Your task to perform on an android device: remove spam from my inbox in the gmail app Image 0: 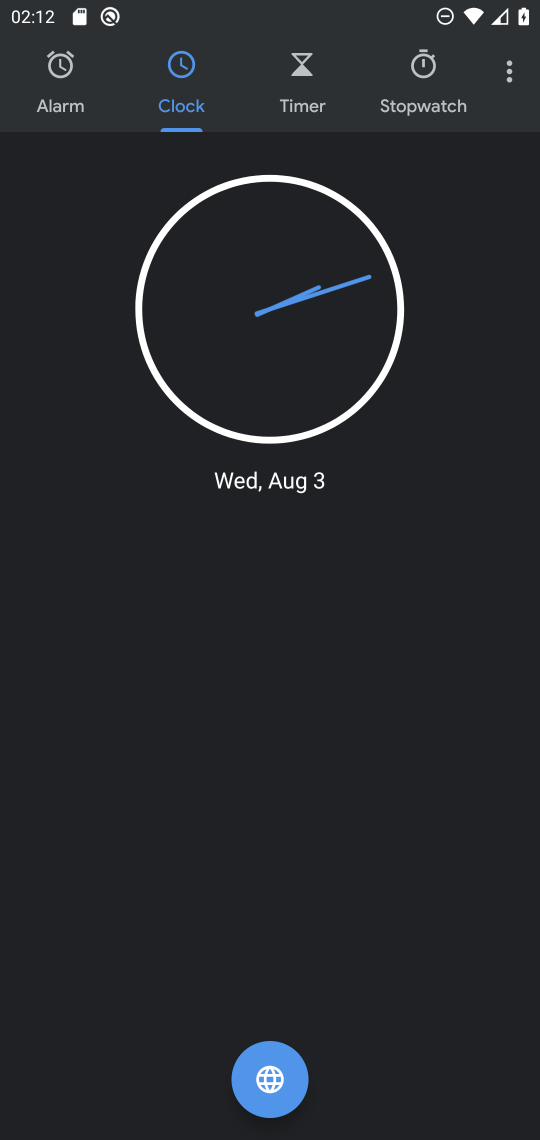
Step 0: press home button
Your task to perform on an android device: remove spam from my inbox in the gmail app Image 1: 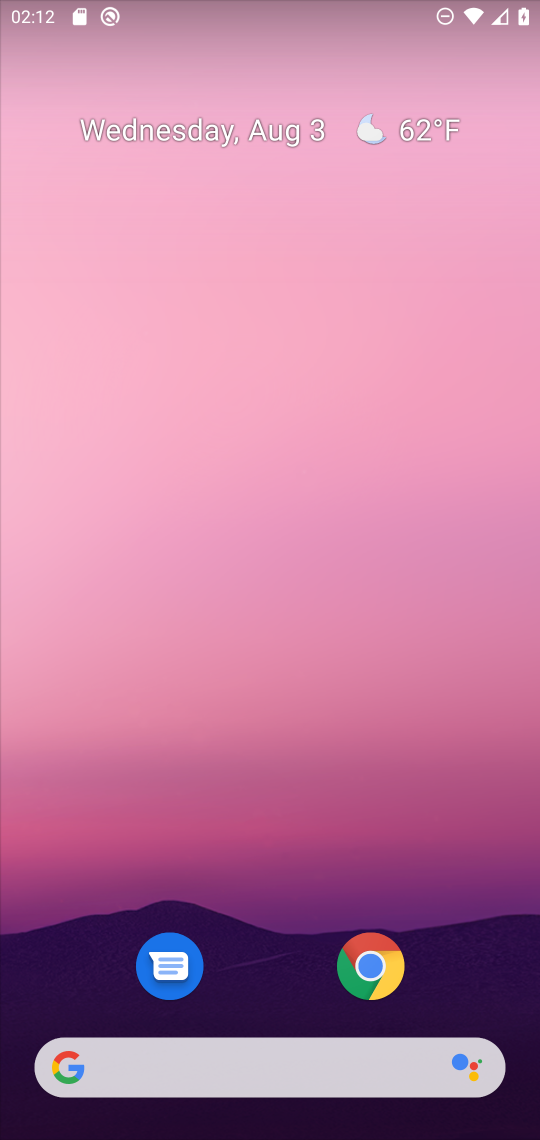
Step 1: drag from (271, 984) to (260, 332)
Your task to perform on an android device: remove spam from my inbox in the gmail app Image 2: 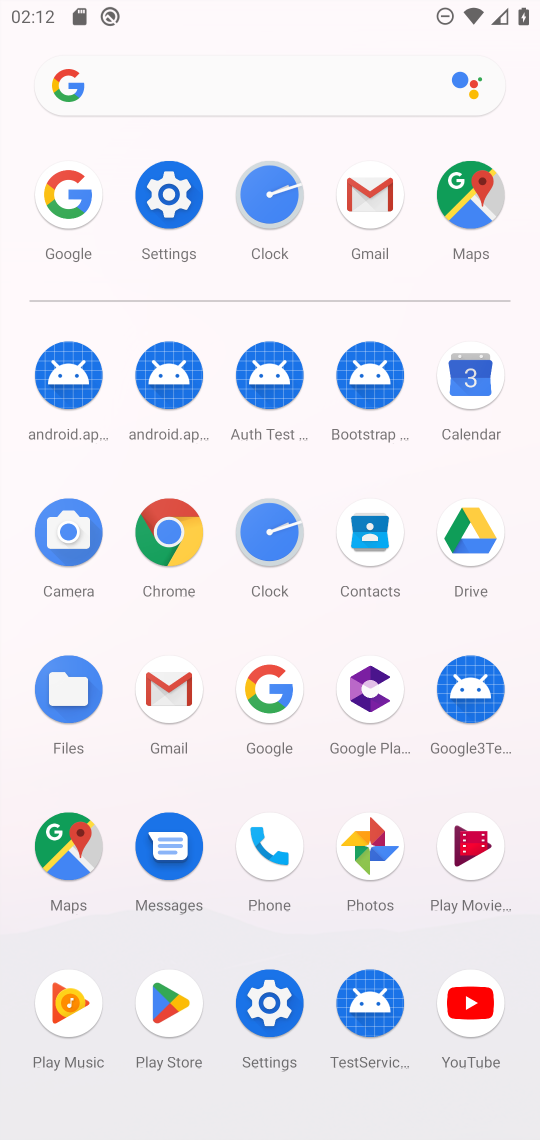
Step 2: click (373, 206)
Your task to perform on an android device: remove spam from my inbox in the gmail app Image 3: 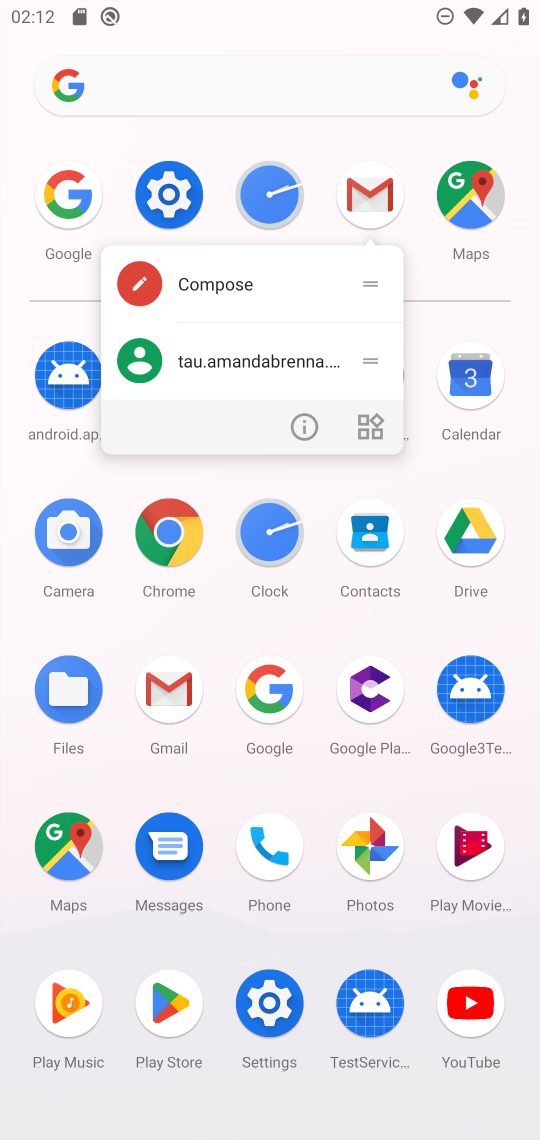
Step 3: click (373, 206)
Your task to perform on an android device: remove spam from my inbox in the gmail app Image 4: 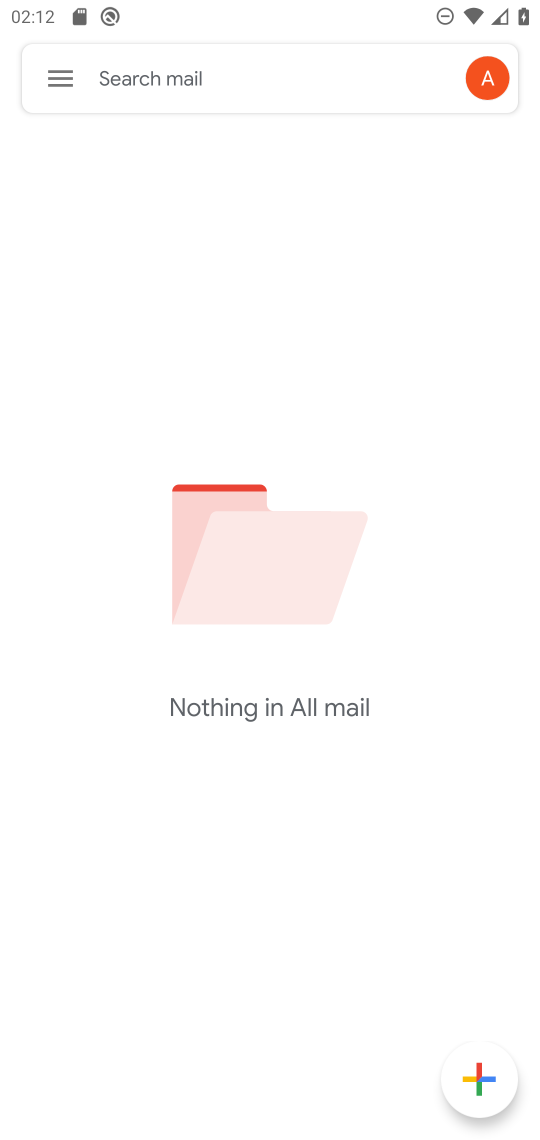
Step 4: click (61, 78)
Your task to perform on an android device: remove spam from my inbox in the gmail app Image 5: 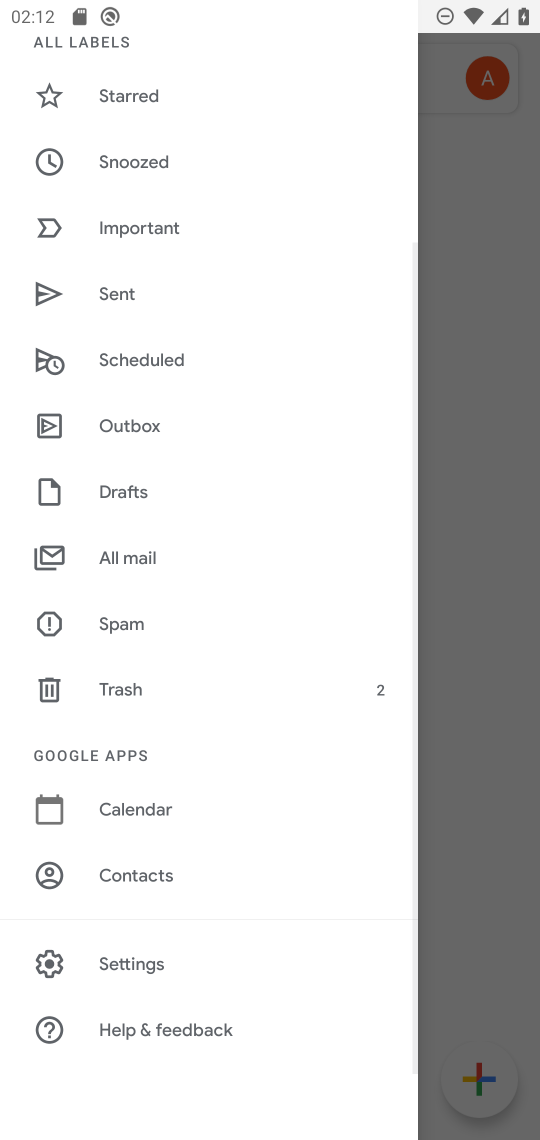
Step 5: click (158, 639)
Your task to perform on an android device: remove spam from my inbox in the gmail app Image 6: 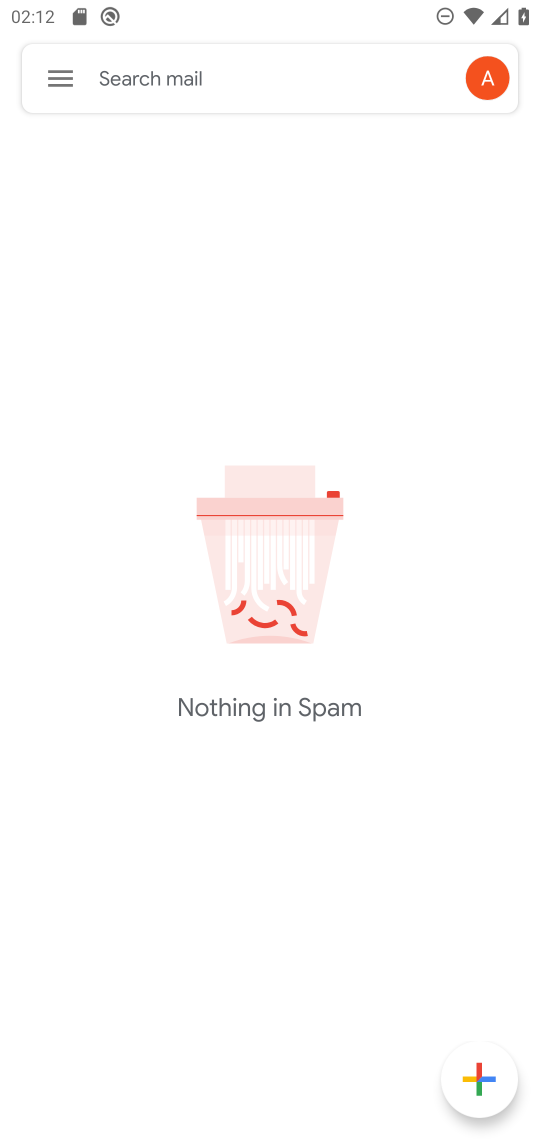
Step 6: click (65, 91)
Your task to perform on an android device: remove spam from my inbox in the gmail app Image 7: 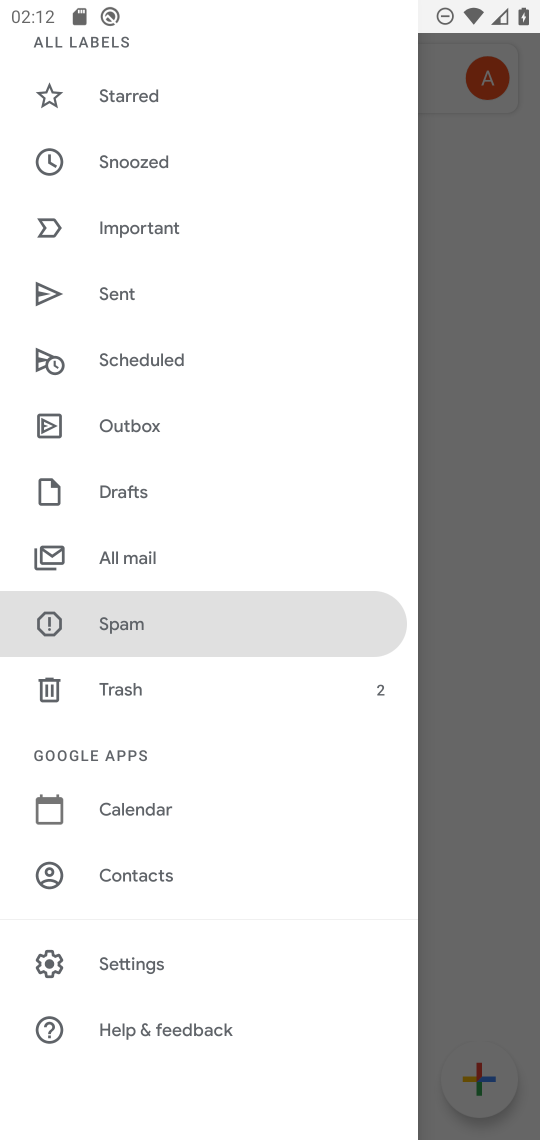
Step 7: drag from (157, 334) to (194, 567)
Your task to perform on an android device: remove spam from my inbox in the gmail app Image 8: 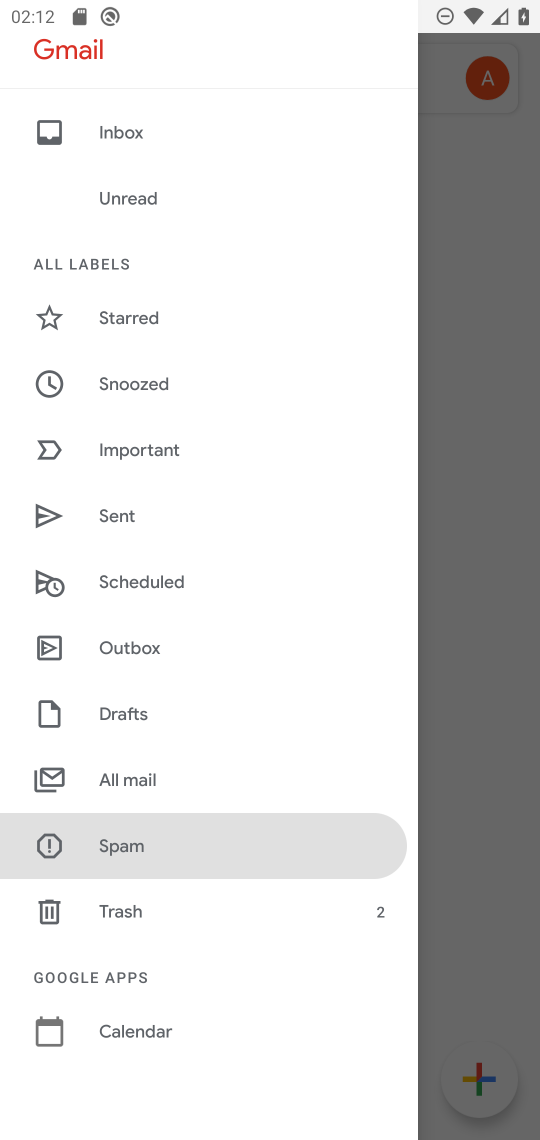
Step 8: click (108, 145)
Your task to perform on an android device: remove spam from my inbox in the gmail app Image 9: 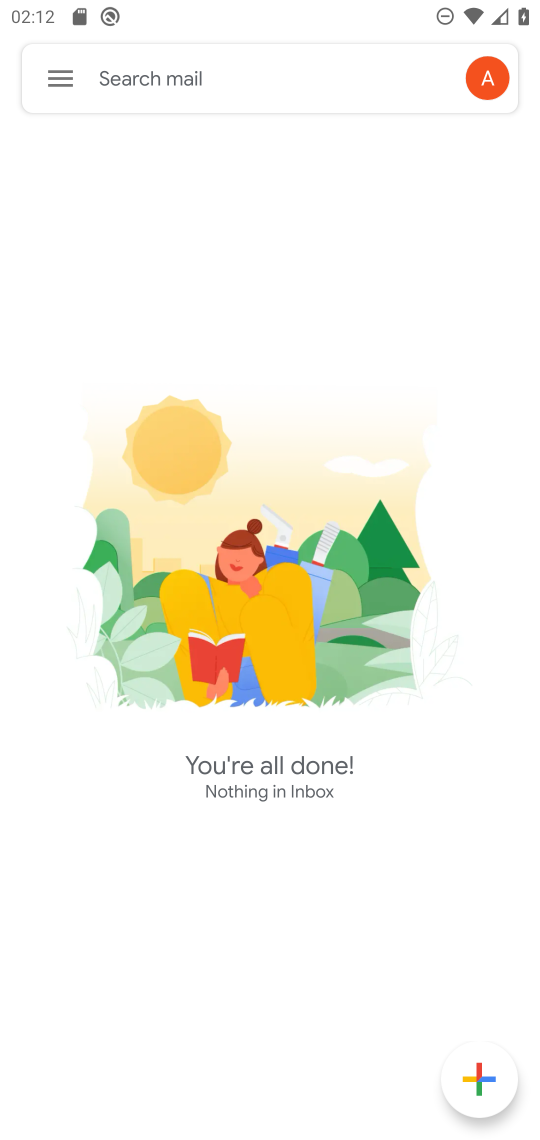
Step 9: task complete